Your task to perform on an android device: Open the map Image 0: 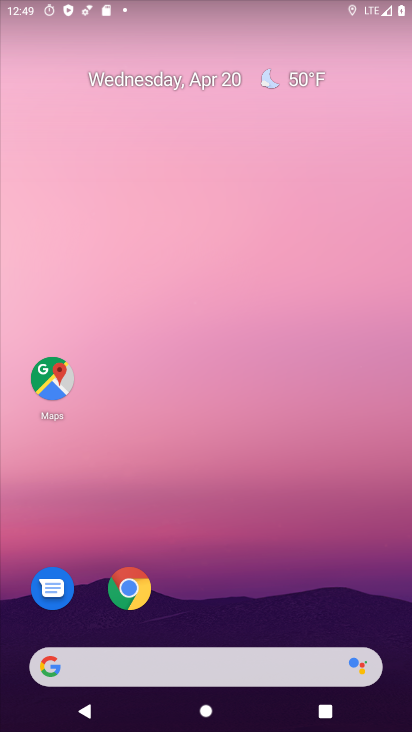
Step 0: click (63, 373)
Your task to perform on an android device: Open the map Image 1: 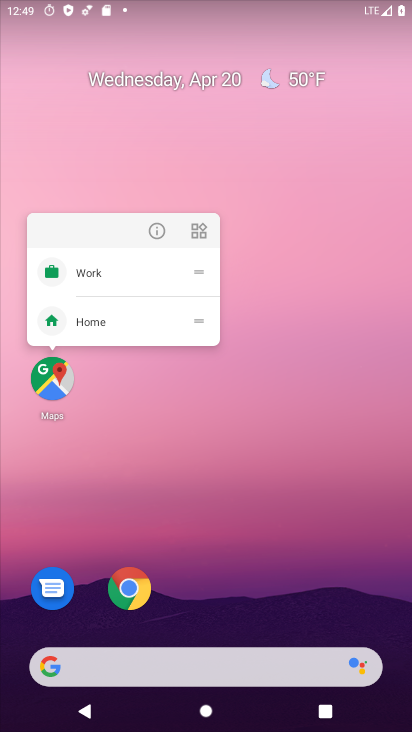
Step 1: click (58, 379)
Your task to perform on an android device: Open the map Image 2: 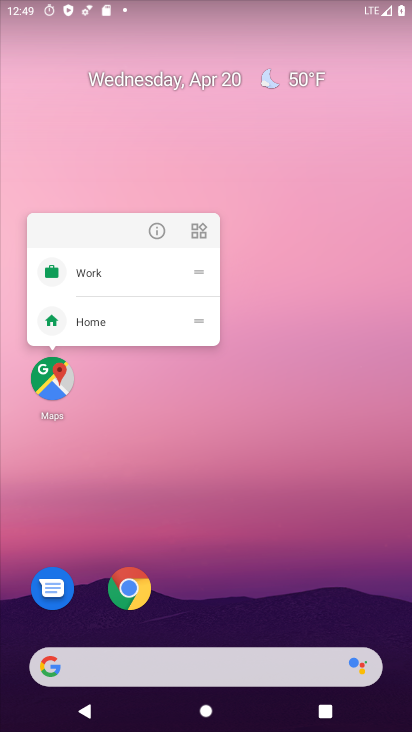
Step 2: click (48, 388)
Your task to perform on an android device: Open the map Image 3: 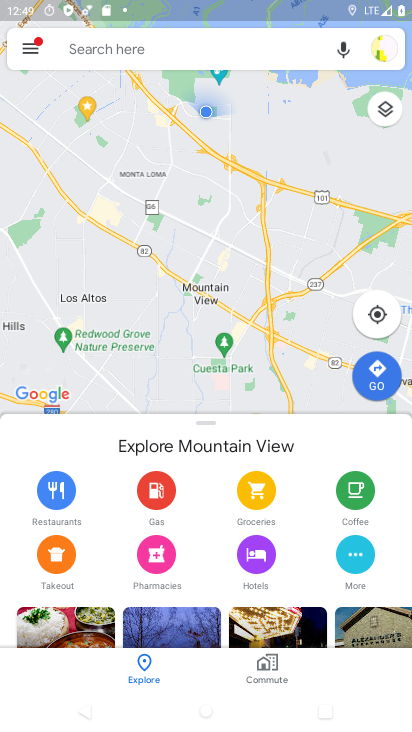
Step 3: task complete